Your task to perform on an android device: Search for pizza restaurants on Maps Image 0: 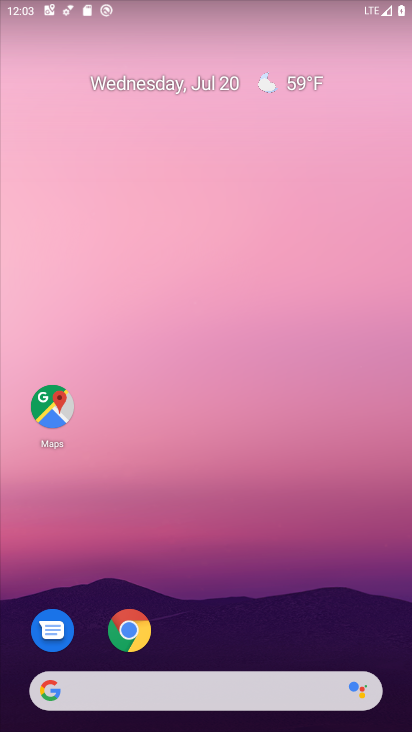
Step 0: click (51, 405)
Your task to perform on an android device: Search for pizza restaurants on Maps Image 1: 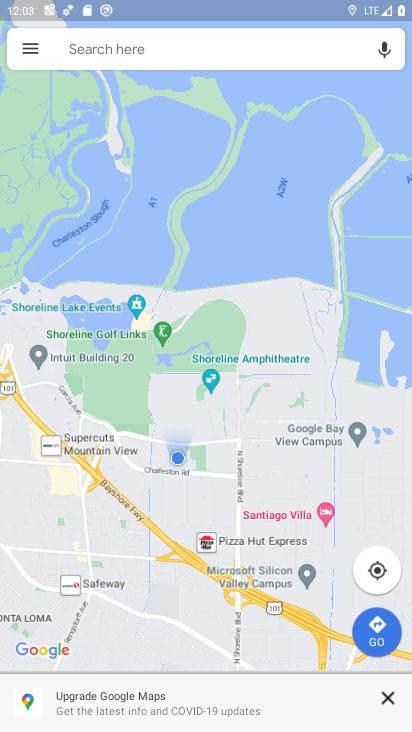
Step 1: click (116, 39)
Your task to perform on an android device: Search for pizza restaurants on Maps Image 2: 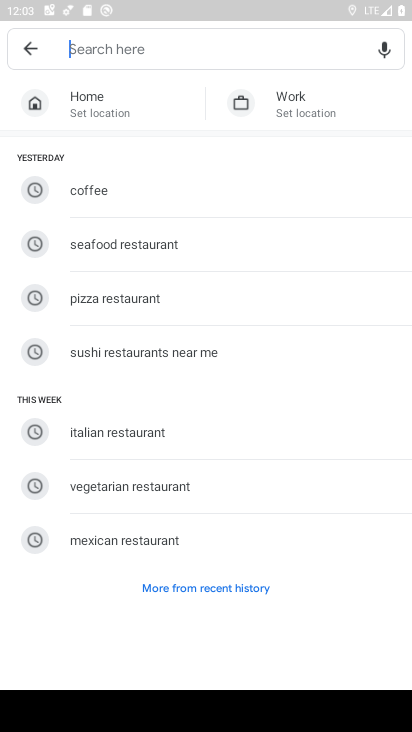
Step 2: type "pizza restaurants"
Your task to perform on an android device: Search for pizza restaurants on Maps Image 3: 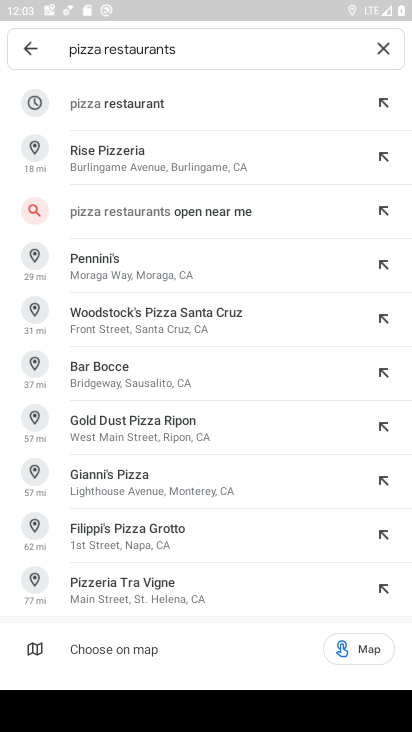
Step 3: click (116, 106)
Your task to perform on an android device: Search for pizza restaurants on Maps Image 4: 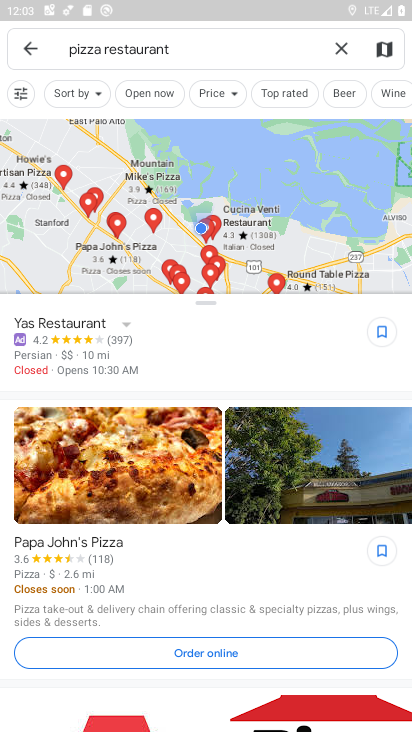
Step 4: task complete